Your task to perform on an android device: What's the weather going to be tomorrow? Image 0: 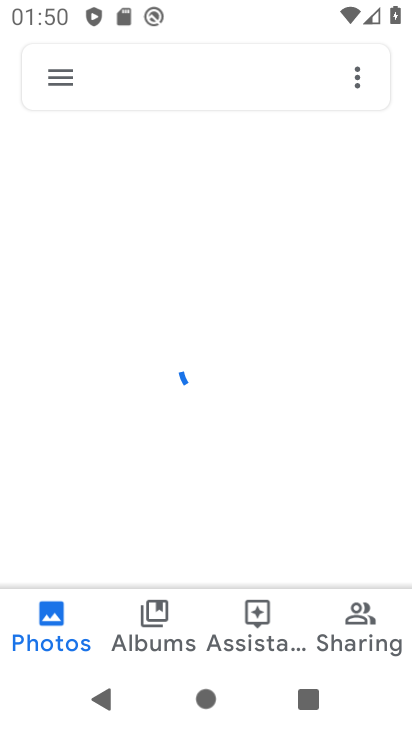
Step 0: press home button
Your task to perform on an android device: What's the weather going to be tomorrow? Image 1: 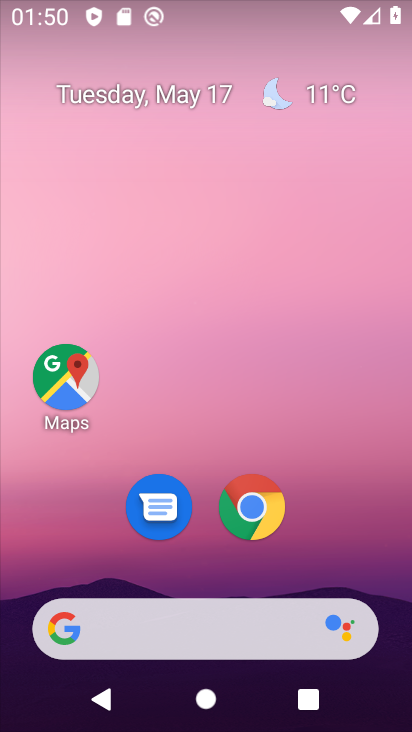
Step 1: click (138, 628)
Your task to perform on an android device: What's the weather going to be tomorrow? Image 2: 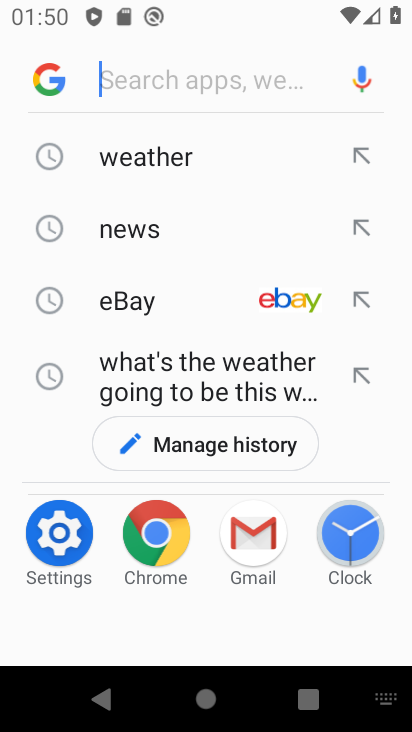
Step 2: click (183, 160)
Your task to perform on an android device: What's the weather going to be tomorrow? Image 3: 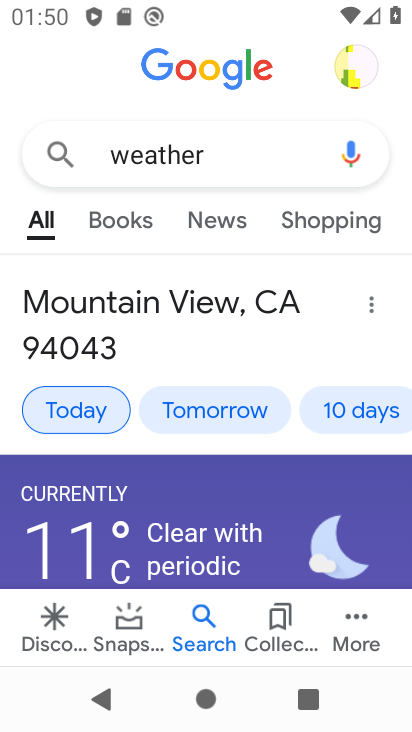
Step 3: task complete